Your task to perform on an android device: Open ESPN.com Image 0: 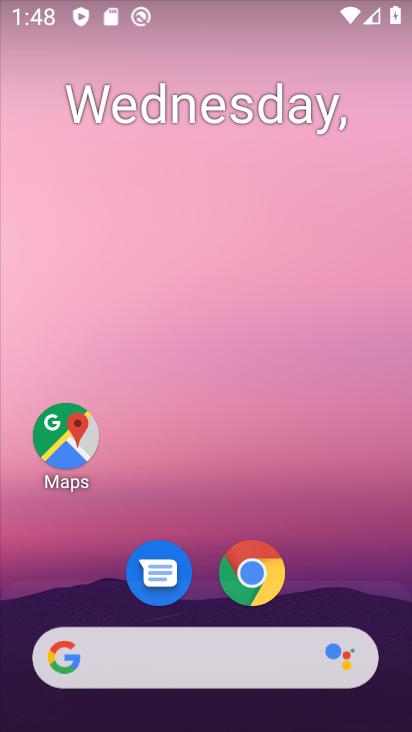
Step 0: click (239, 572)
Your task to perform on an android device: Open ESPN.com Image 1: 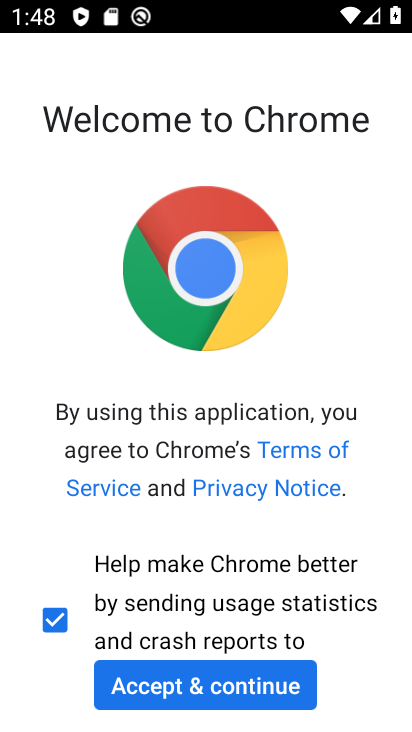
Step 1: click (284, 698)
Your task to perform on an android device: Open ESPN.com Image 2: 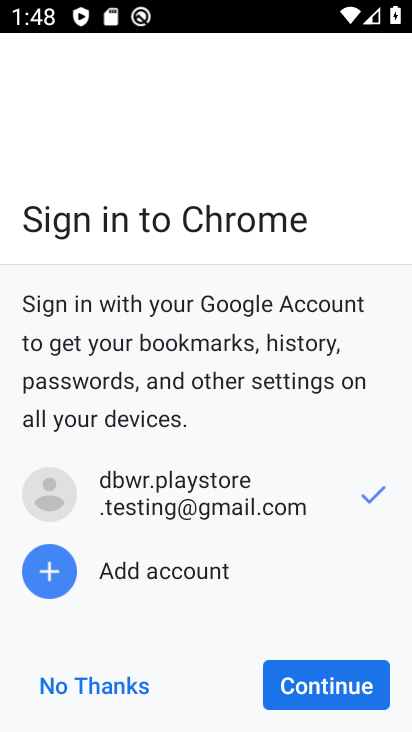
Step 2: click (353, 699)
Your task to perform on an android device: Open ESPN.com Image 3: 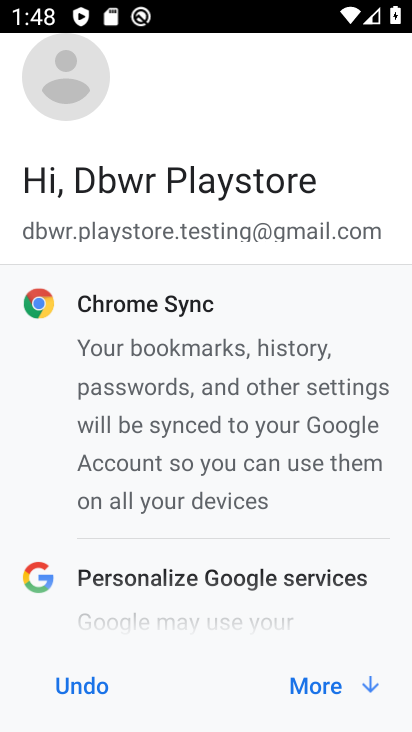
Step 3: click (350, 694)
Your task to perform on an android device: Open ESPN.com Image 4: 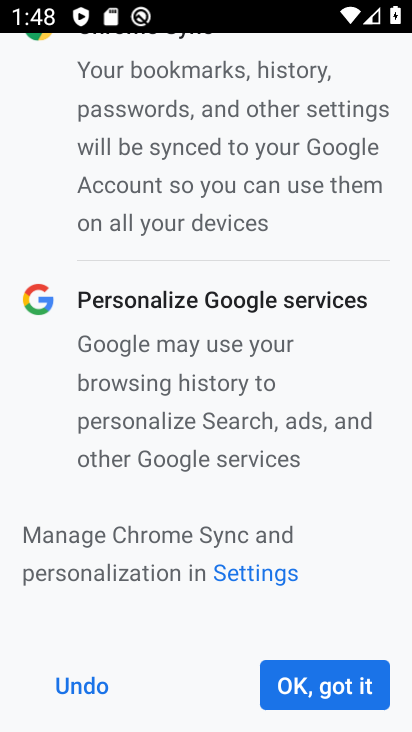
Step 4: click (350, 694)
Your task to perform on an android device: Open ESPN.com Image 5: 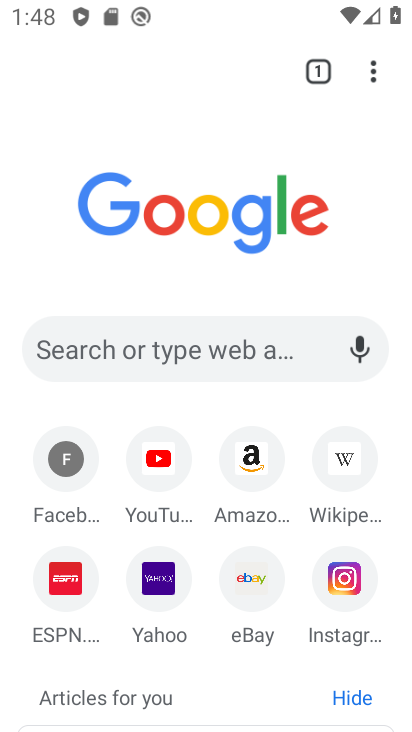
Step 5: click (71, 557)
Your task to perform on an android device: Open ESPN.com Image 6: 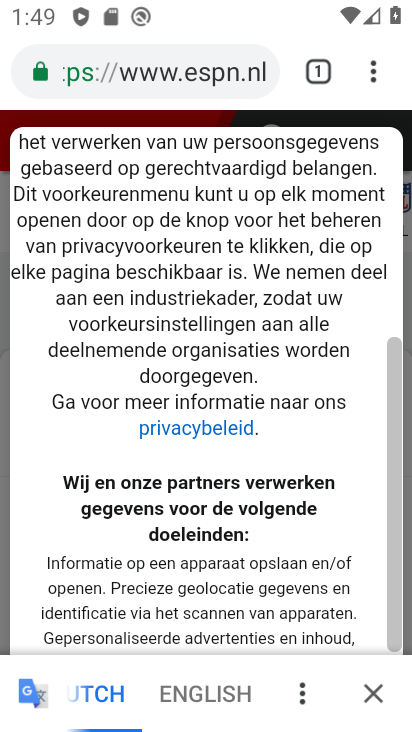
Step 6: task complete